Your task to perform on an android device: check battery use Image 0: 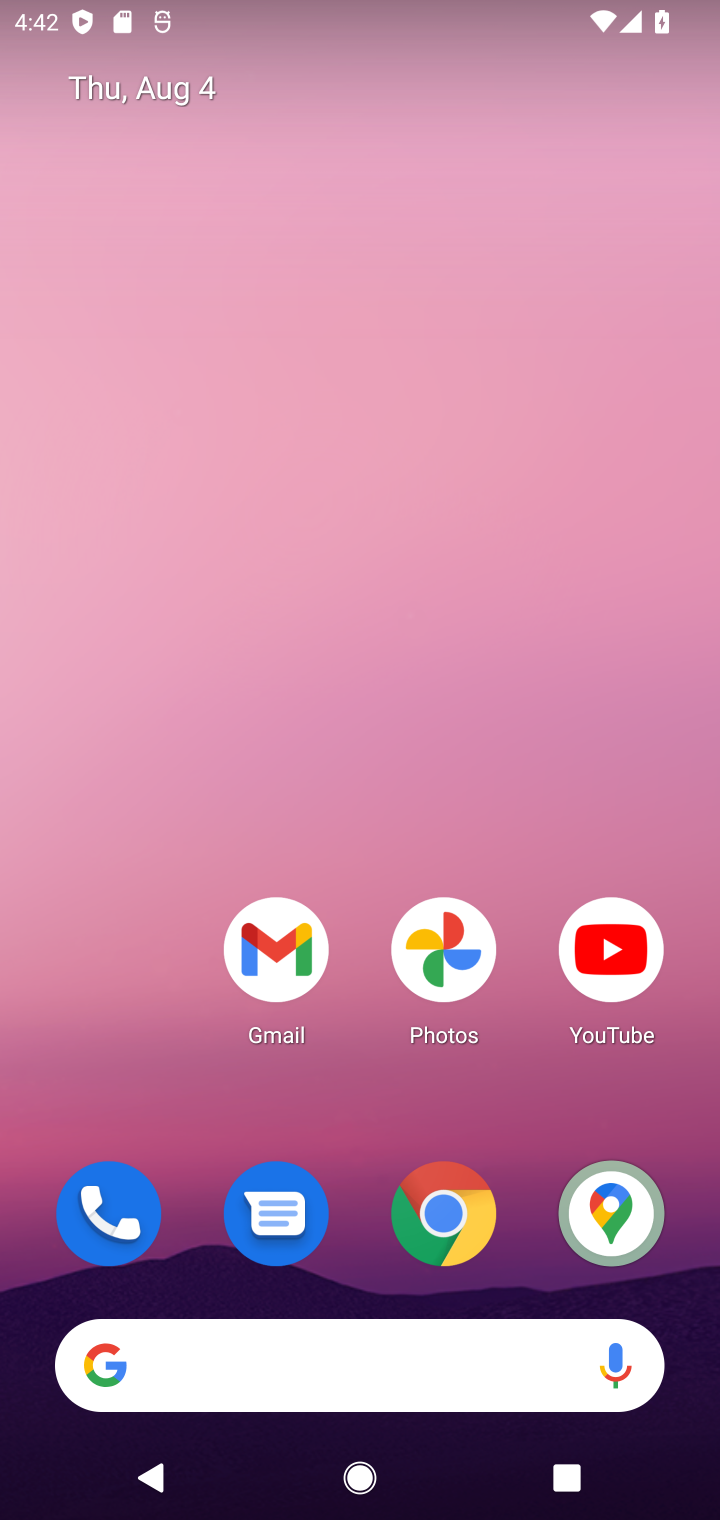
Step 0: drag from (262, 1377) to (361, 227)
Your task to perform on an android device: check battery use Image 1: 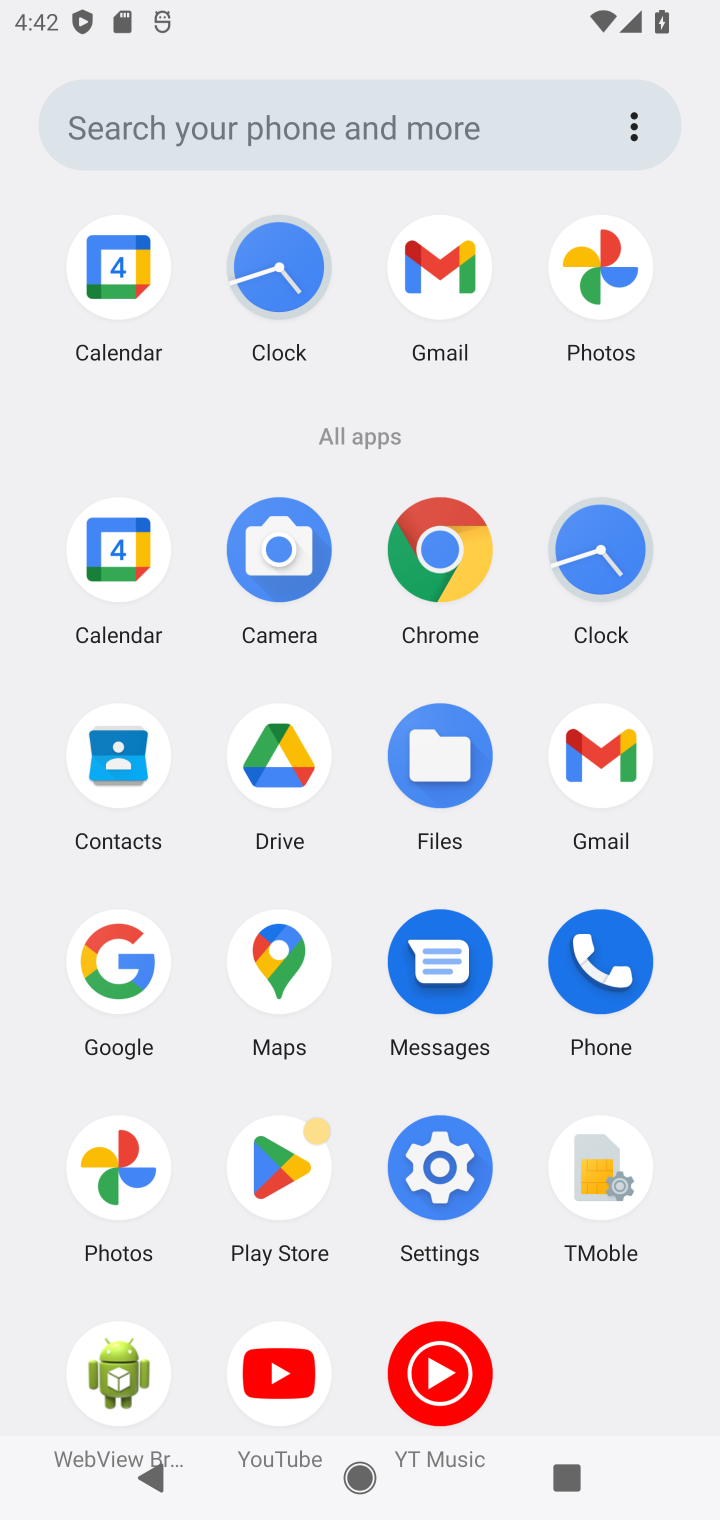
Step 1: click (441, 1164)
Your task to perform on an android device: check battery use Image 2: 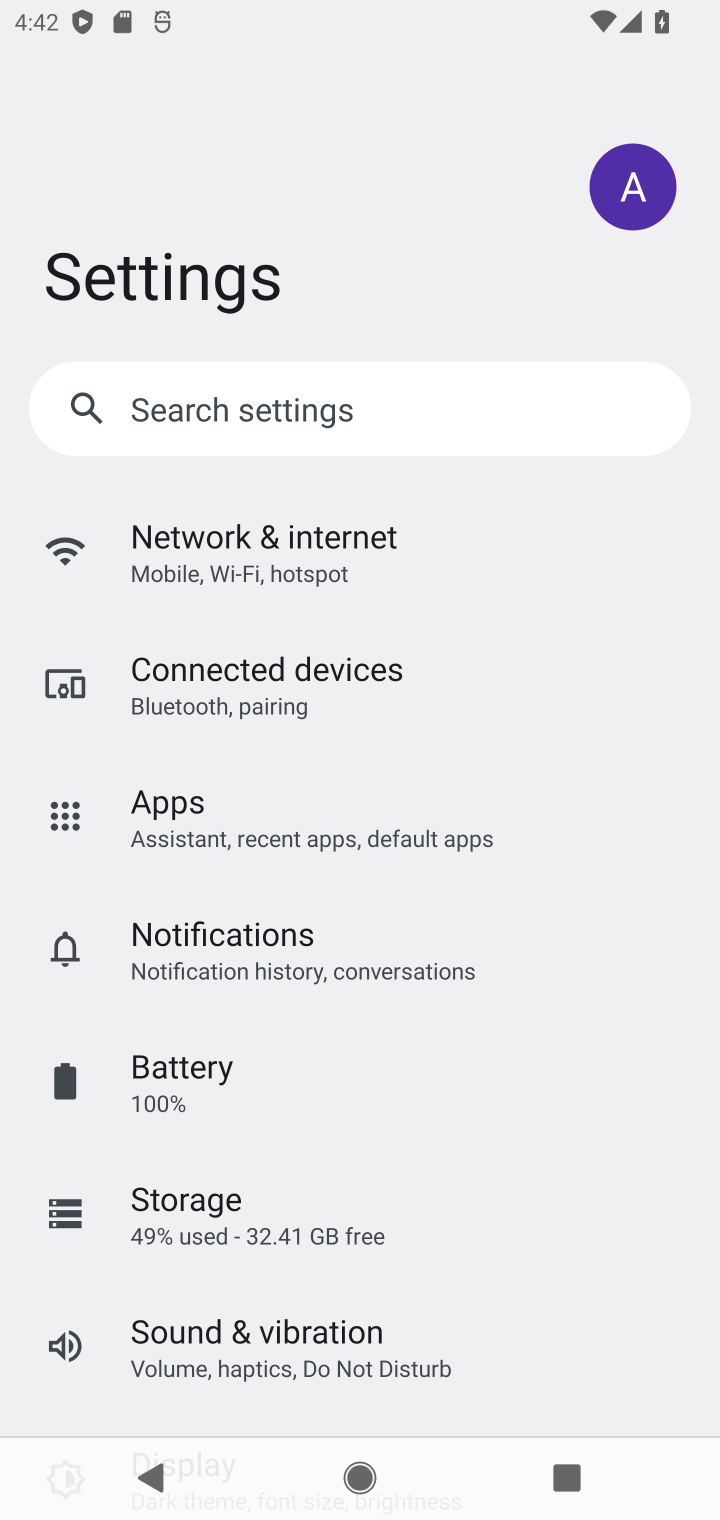
Step 2: click (197, 1075)
Your task to perform on an android device: check battery use Image 3: 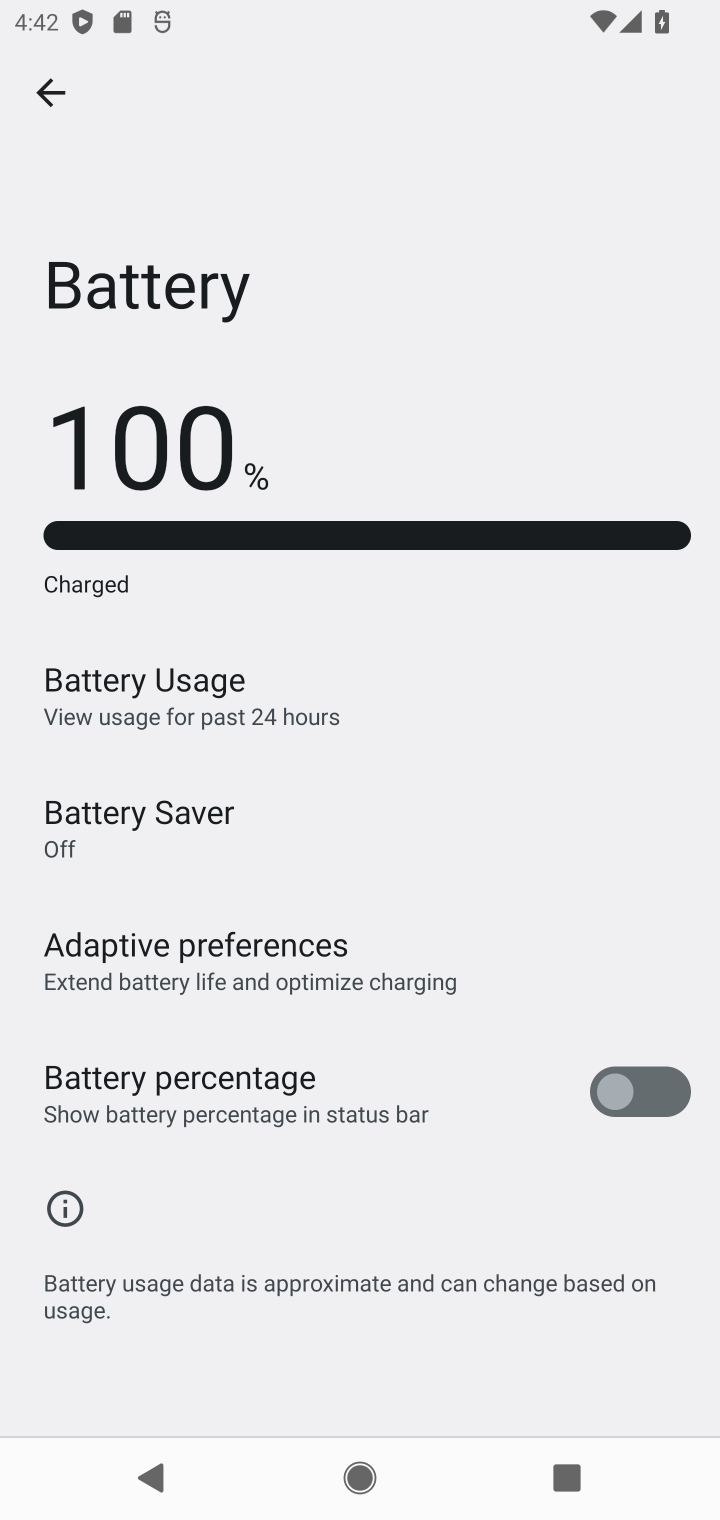
Step 3: click (234, 682)
Your task to perform on an android device: check battery use Image 4: 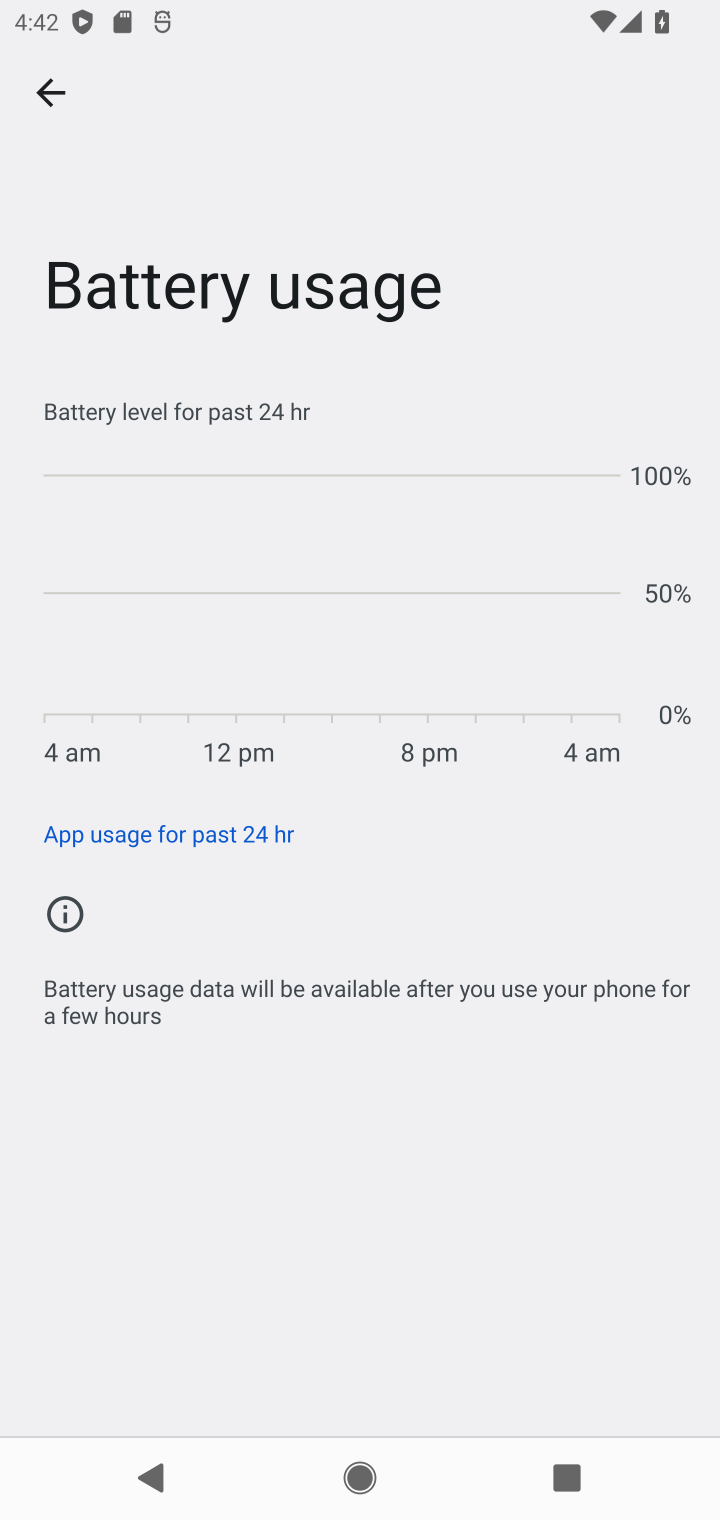
Step 4: task complete